Your task to perform on an android device: Open eBay Image 0: 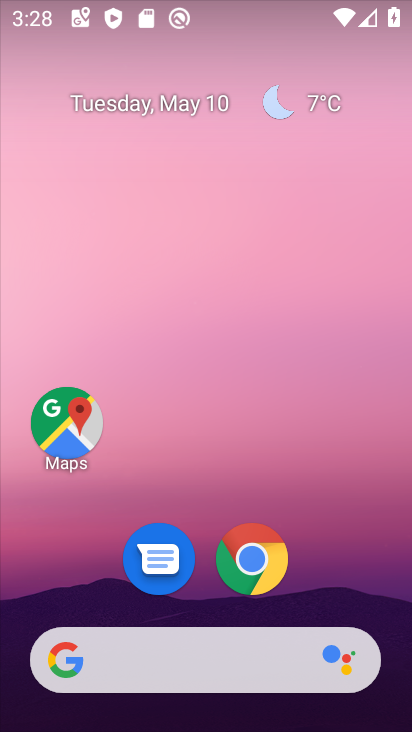
Step 0: click (261, 546)
Your task to perform on an android device: Open eBay Image 1: 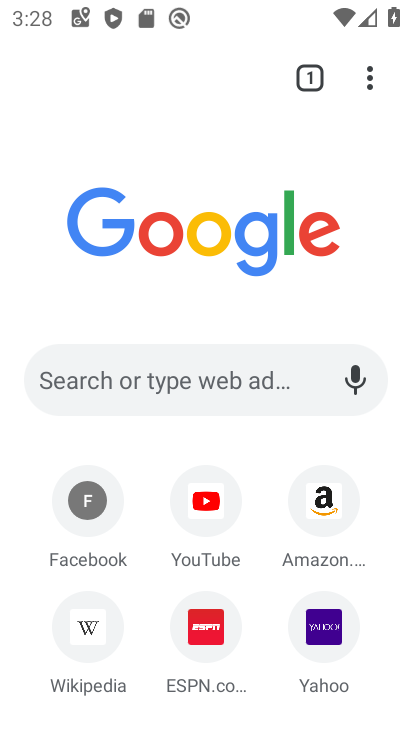
Step 1: click (131, 381)
Your task to perform on an android device: Open eBay Image 2: 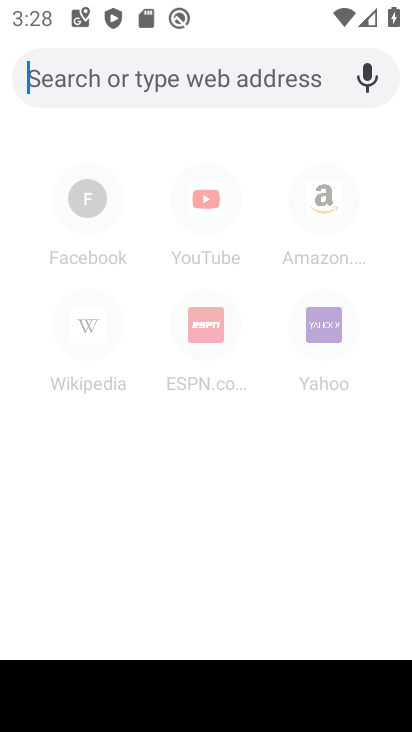
Step 2: type "ebay"
Your task to perform on an android device: Open eBay Image 3: 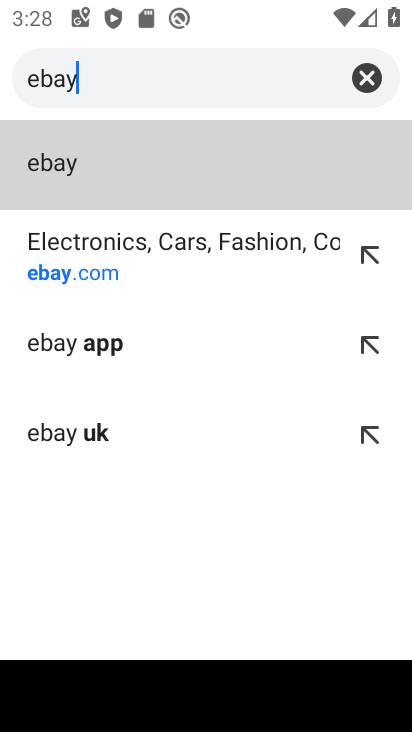
Step 3: click (84, 159)
Your task to perform on an android device: Open eBay Image 4: 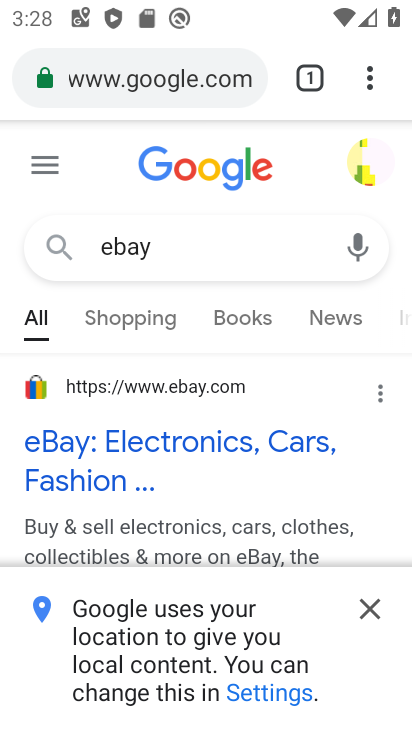
Step 4: click (119, 444)
Your task to perform on an android device: Open eBay Image 5: 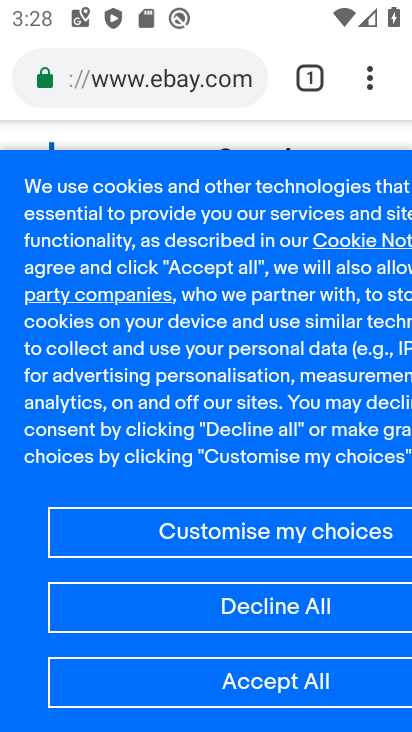
Step 5: task complete